Your task to perform on an android device: Open Maps and search for coffee Image 0: 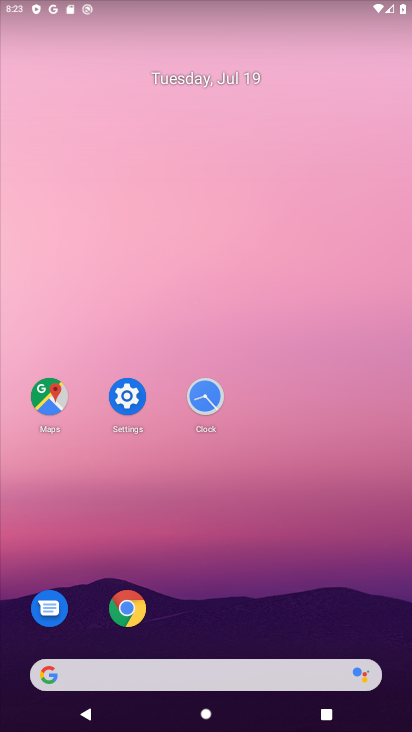
Step 0: click (45, 396)
Your task to perform on an android device: Open Maps and search for coffee Image 1: 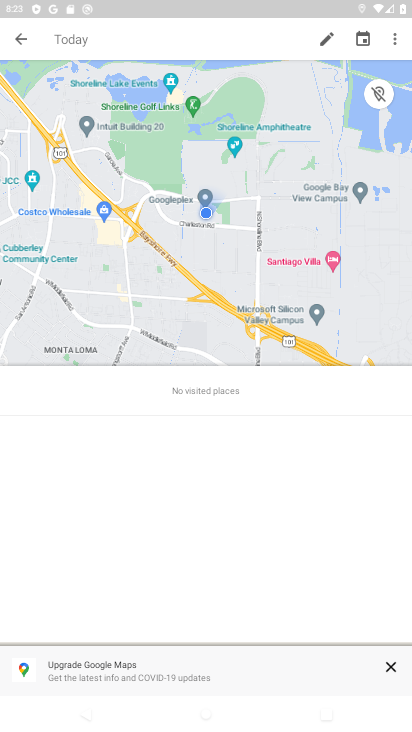
Step 1: click (118, 47)
Your task to perform on an android device: Open Maps and search for coffee Image 2: 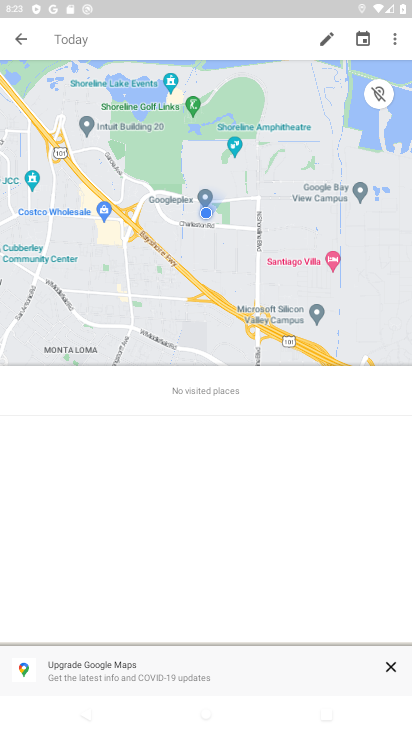
Step 2: click (21, 43)
Your task to perform on an android device: Open Maps and search for coffee Image 3: 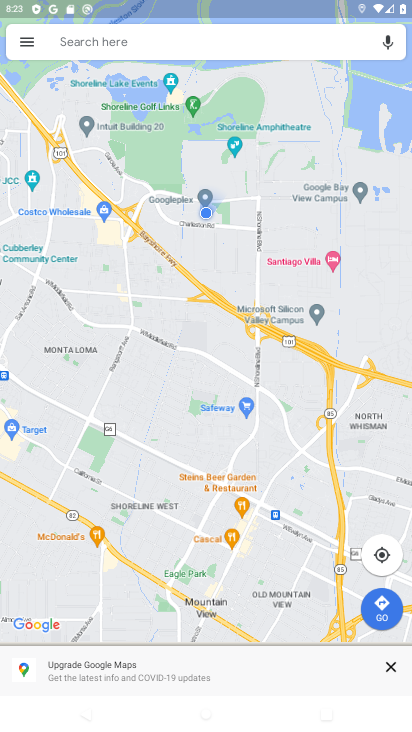
Step 3: click (61, 36)
Your task to perform on an android device: Open Maps and search for coffee Image 4: 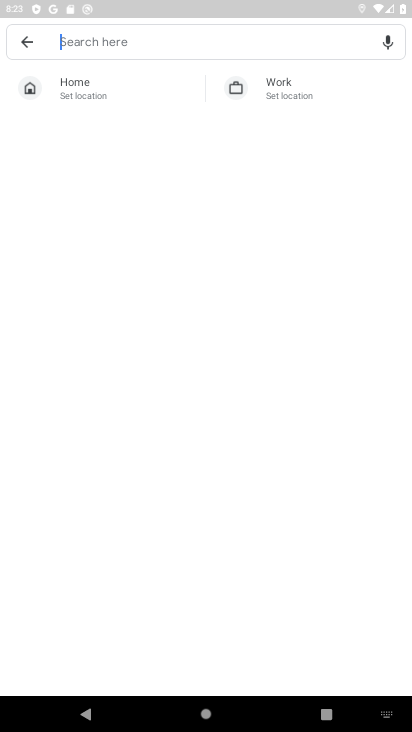
Step 4: type "coffee"
Your task to perform on an android device: Open Maps and search for coffee Image 5: 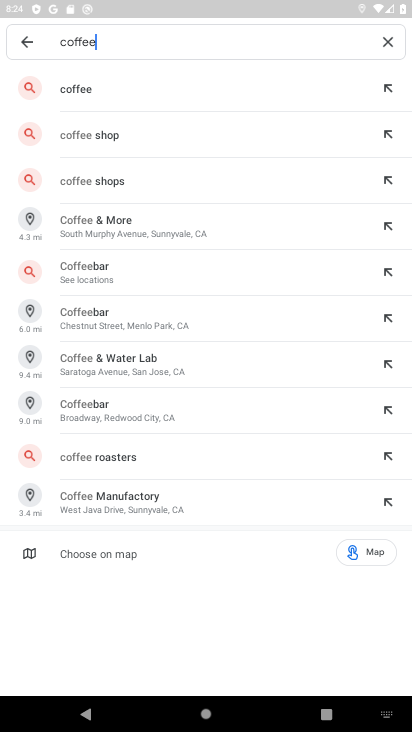
Step 5: click (102, 88)
Your task to perform on an android device: Open Maps and search for coffee Image 6: 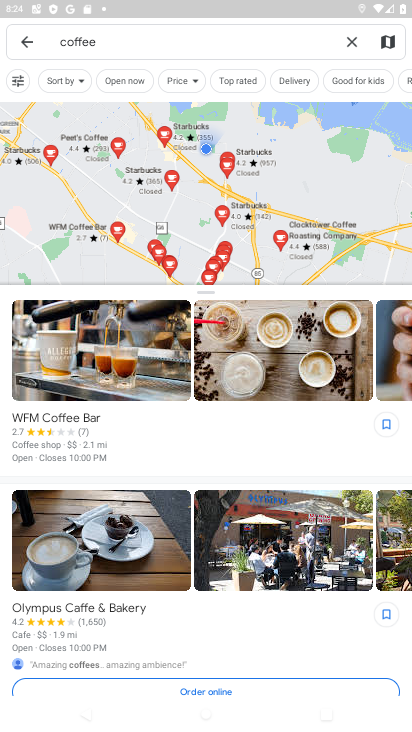
Step 6: task complete